Your task to perform on an android device: turn on sleep mode Image 0: 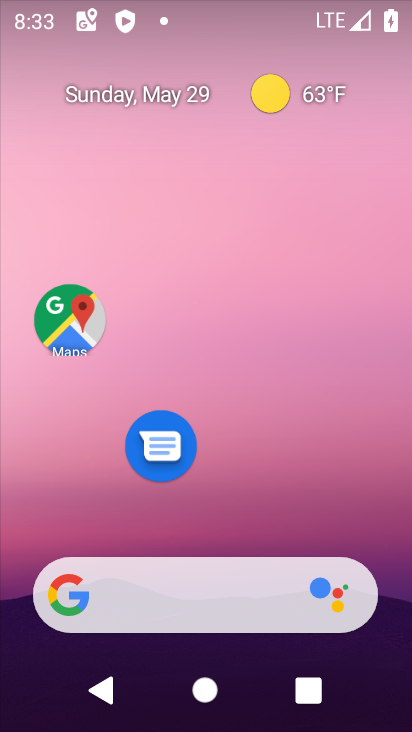
Step 0: drag from (193, 501) to (279, 71)
Your task to perform on an android device: turn on sleep mode Image 1: 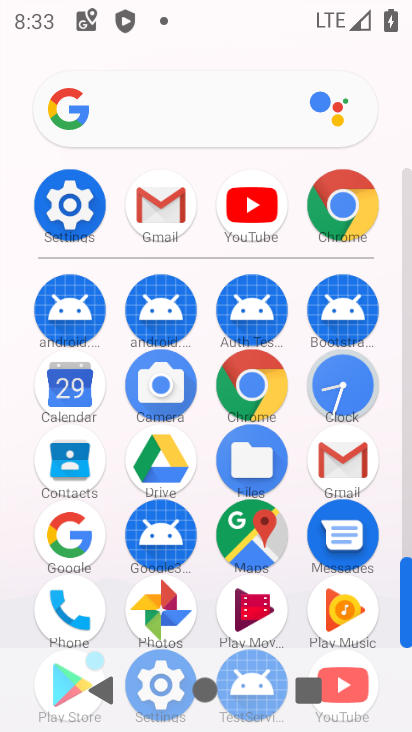
Step 1: click (63, 211)
Your task to perform on an android device: turn on sleep mode Image 2: 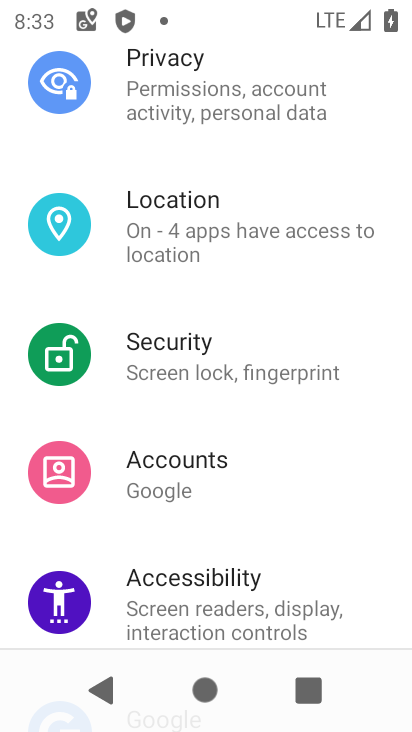
Step 2: drag from (241, 168) to (282, 497)
Your task to perform on an android device: turn on sleep mode Image 3: 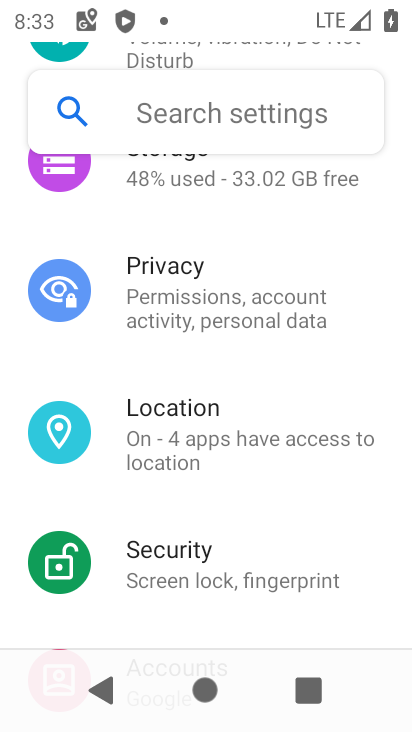
Step 3: drag from (228, 209) to (246, 509)
Your task to perform on an android device: turn on sleep mode Image 4: 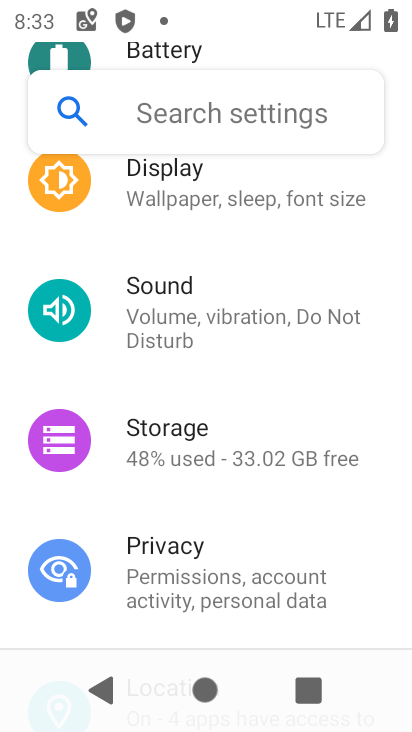
Step 4: click (216, 205)
Your task to perform on an android device: turn on sleep mode Image 5: 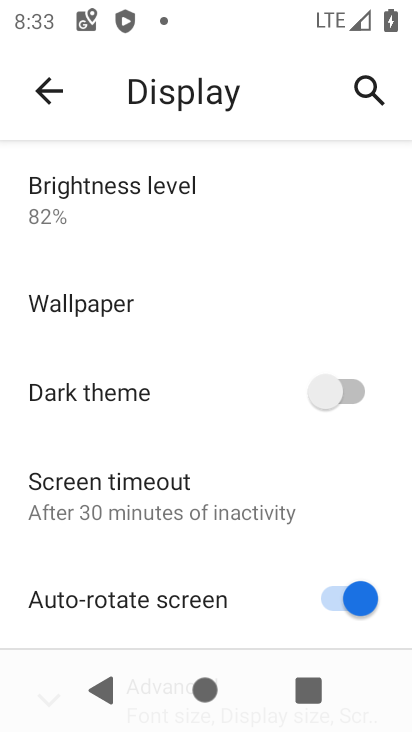
Step 5: click (191, 470)
Your task to perform on an android device: turn on sleep mode Image 6: 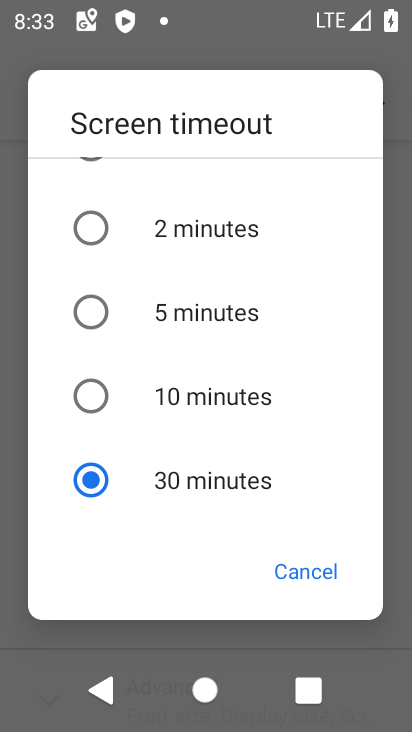
Step 6: click (164, 328)
Your task to perform on an android device: turn on sleep mode Image 7: 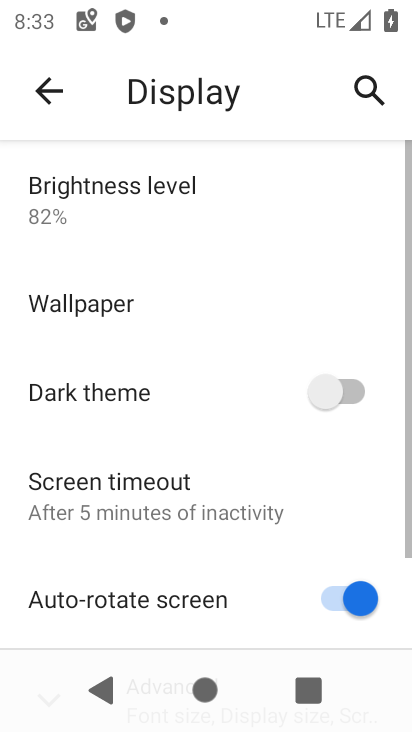
Step 7: task complete